Your task to perform on an android device: Search for Mexican restaurants on Maps Image 0: 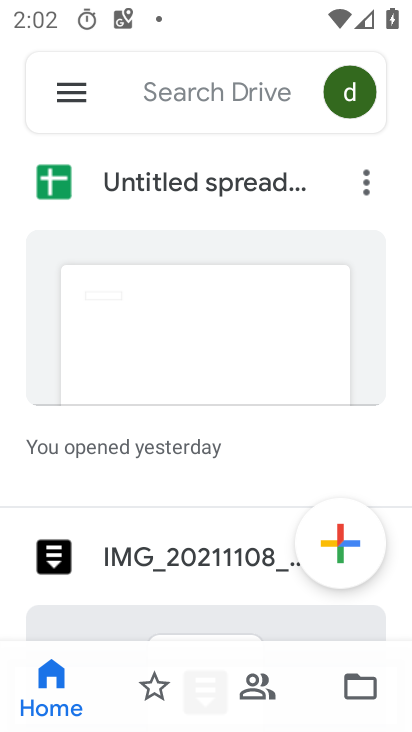
Step 0: press home button
Your task to perform on an android device: Search for Mexican restaurants on Maps Image 1: 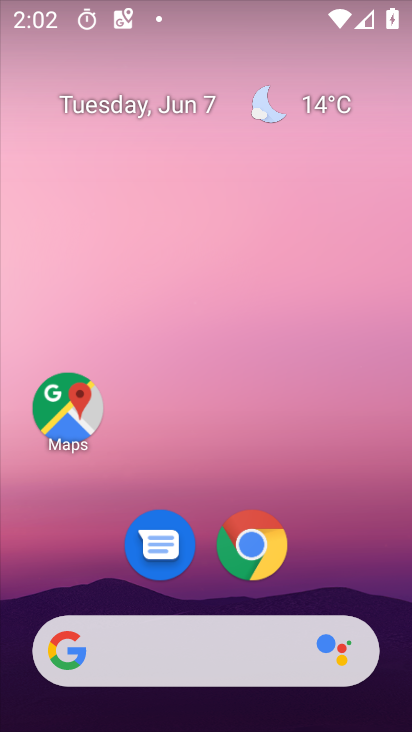
Step 1: click (67, 422)
Your task to perform on an android device: Search for Mexican restaurants on Maps Image 2: 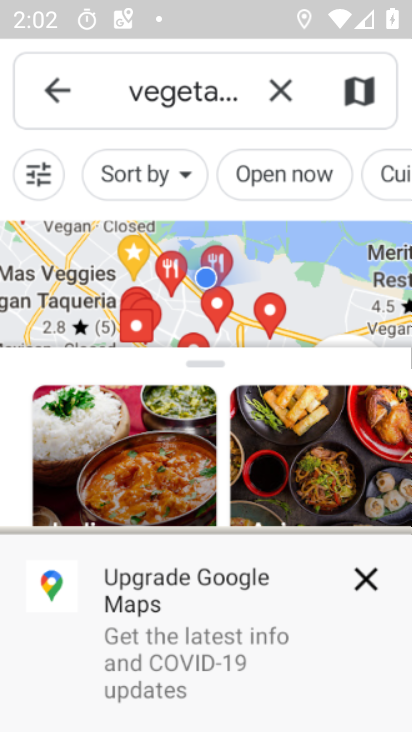
Step 2: click (282, 97)
Your task to perform on an android device: Search for Mexican restaurants on Maps Image 3: 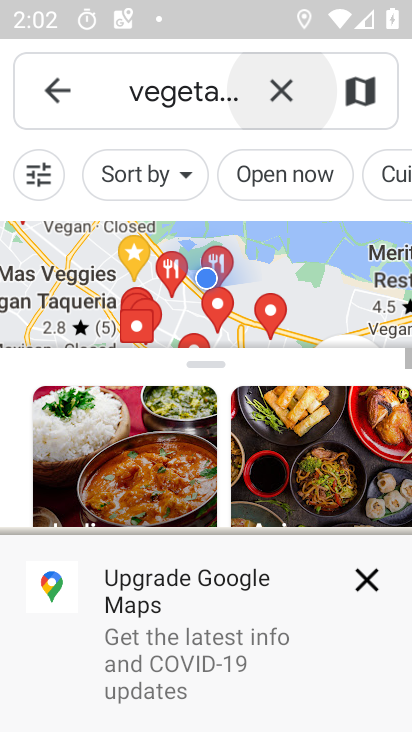
Step 3: click (160, 84)
Your task to perform on an android device: Search for Mexican restaurants on Maps Image 4: 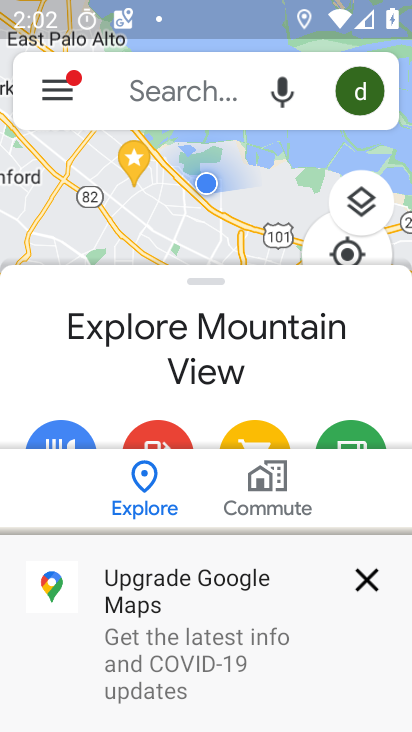
Step 4: click (370, 567)
Your task to perform on an android device: Search for Mexican restaurants on Maps Image 5: 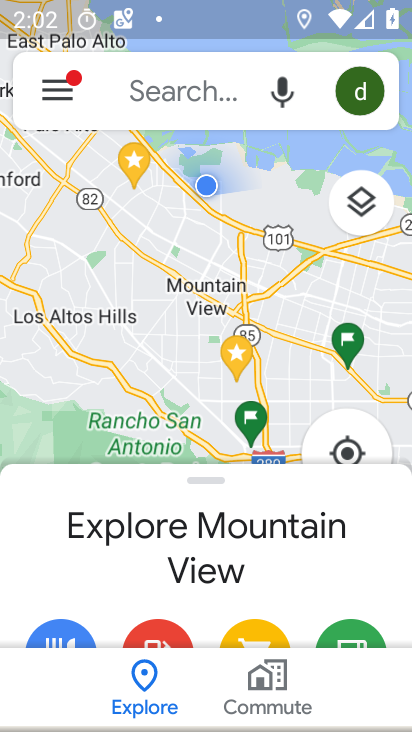
Step 5: click (176, 89)
Your task to perform on an android device: Search for Mexican restaurants on Maps Image 6: 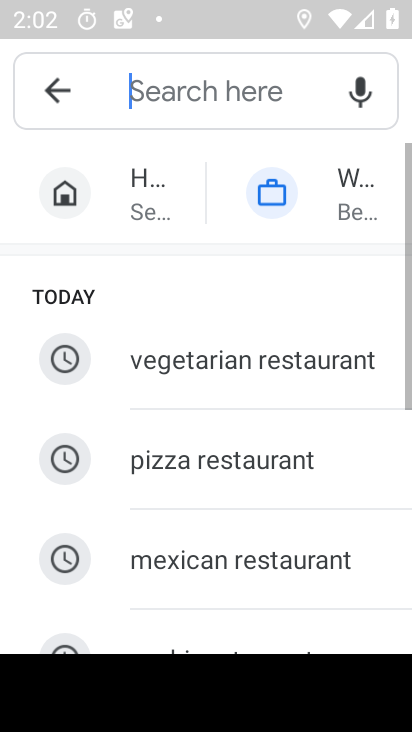
Step 6: click (239, 561)
Your task to perform on an android device: Search for Mexican restaurants on Maps Image 7: 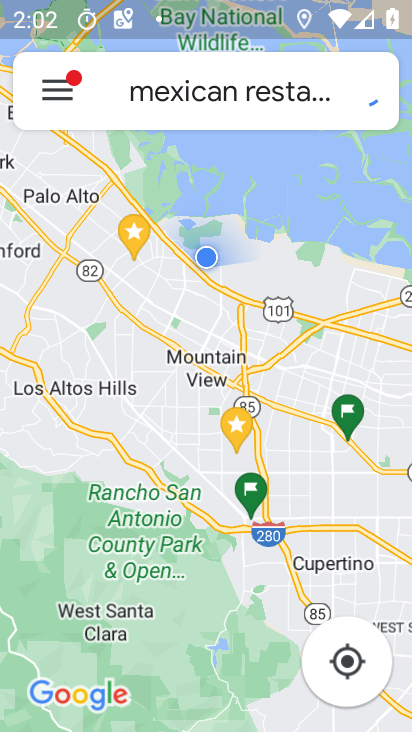
Step 7: task complete